Your task to perform on an android device: choose inbox layout in the gmail app Image 0: 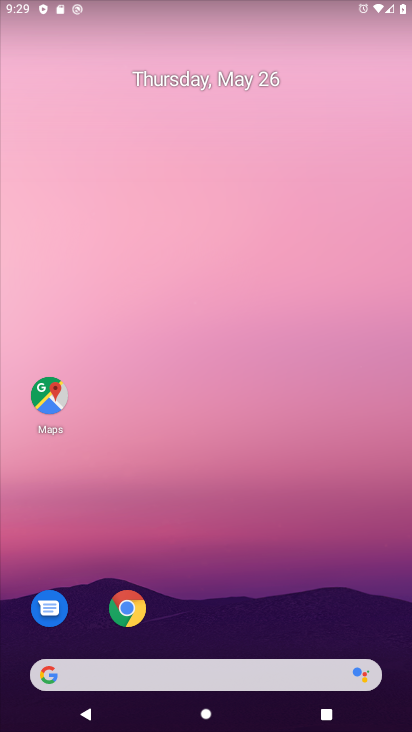
Step 0: drag from (282, 595) to (223, 106)
Your task to perform on an android device: choose inbox layout in the gmail app Image 1: 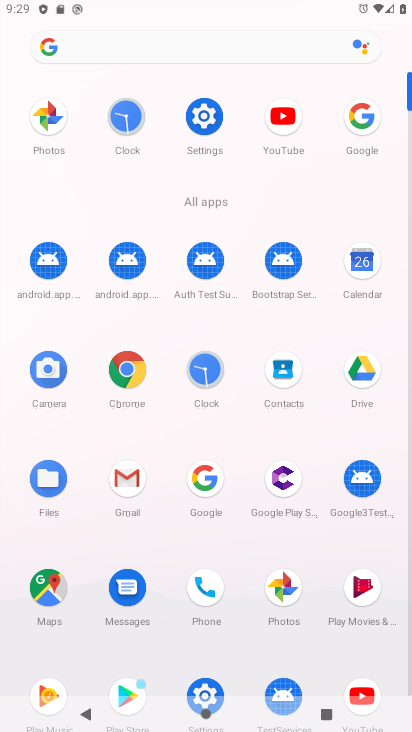
Step 1: click (139, 484)
Your task to perform on an android device: choose inbox layout in the gmail app Image 2: 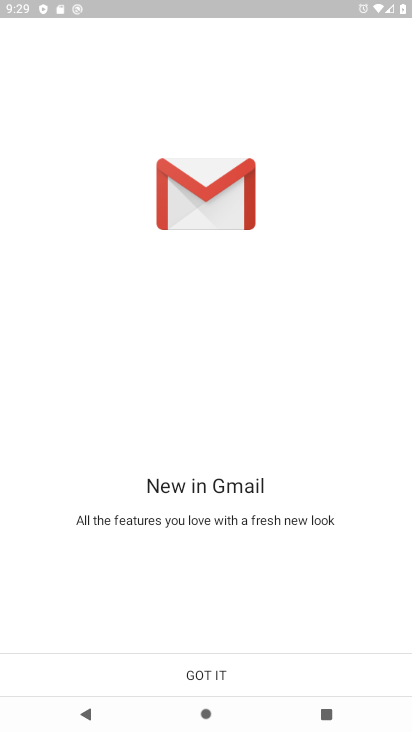
Step 2: click (244, 674)
Your task to perform on an android device: choose inbox layout in the gmail app Image 3: 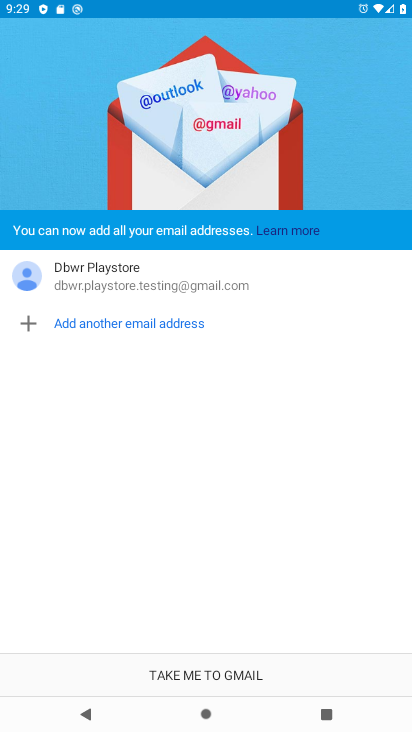
Step 3: click (218, 674)
Your task to perform on an android device: choose inbox layout in the gmail app Image 4: 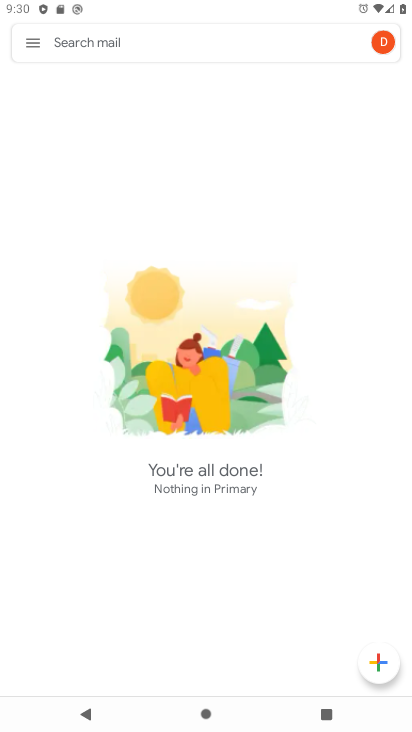
Step 4: click (33, 48)
Your task to perform on an android device: choose inbox layout in the gmail app Image 5: 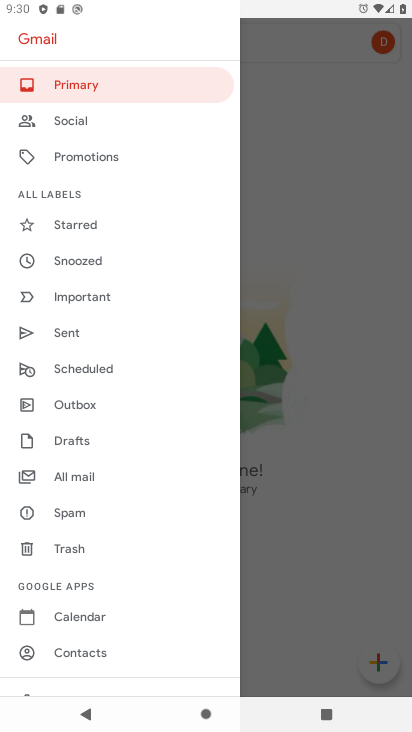
Step 5: drag from (120, 588) to (139, 262)
Your task to perform on an android device: choose inbox layout in the gmail app Image 6: 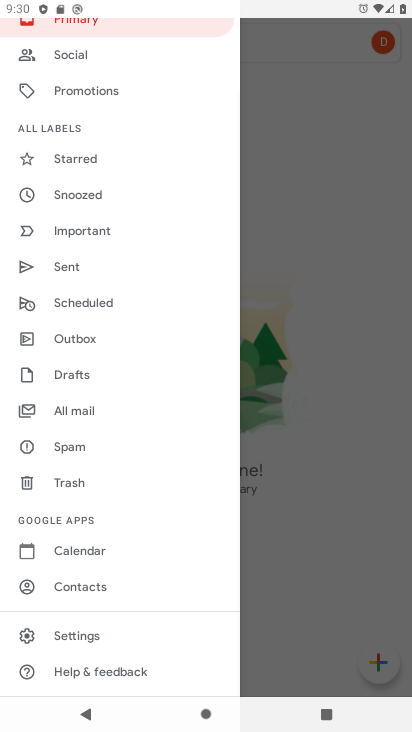
Step 6: click (99, 639)
Your task to perform on an android device: choose inbox layout in the gmail app Image 7: 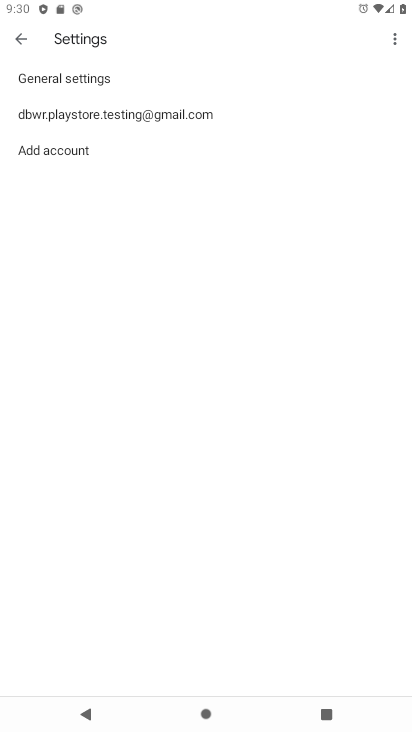
Step 7: click (100, 109)
Your task to perform on an android device: choose inbox layout in the gmail app Image 8: 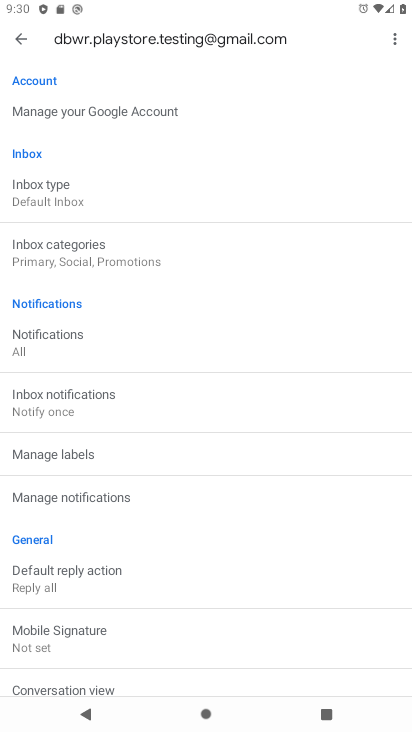
Step 8: drag from (145, 591) to (138, 92)
Your task to perform on an android device: choose inbox layout in the gmail app Image 9: 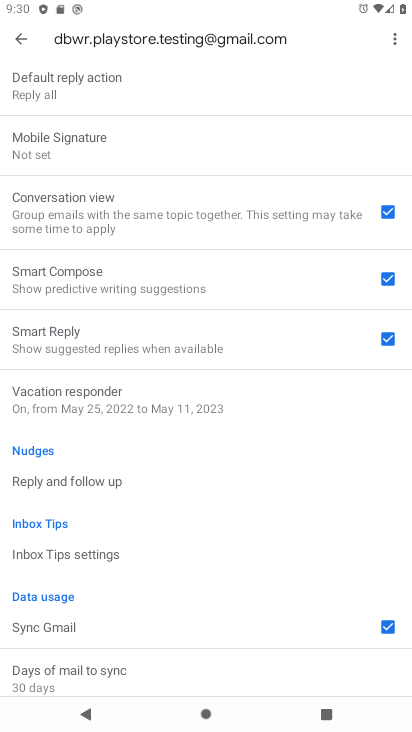
Step 9: drag from (151, 249) to (87, 653)
Your task to perform on an android device: choose inbox layout in the gmail app Image 10: 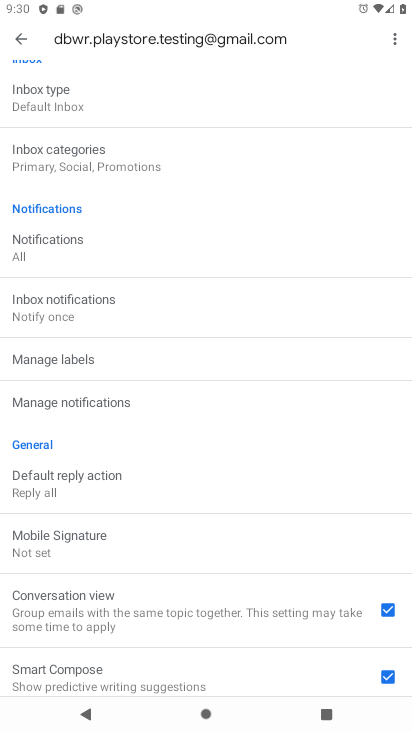
Step 10: click (57, 105)
Your task to perform on an android device: choose inbox layout in the gmail app Image 11: 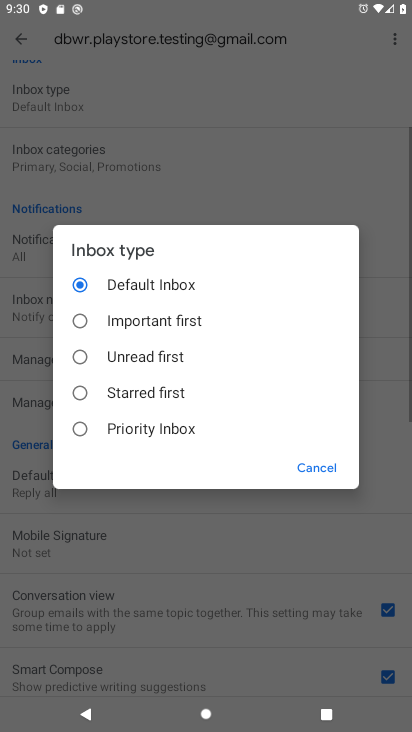
Step 11: click (144, 302)
Your task to perform on an android device: choose inbox layout in the gmail app Image 12: 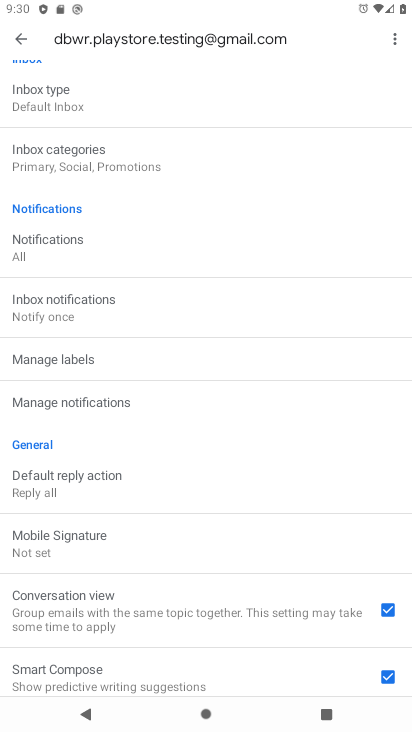
Step 12: click (158, 322)
Your task to perform on an android device: choose inbox layout in the gmail app Image 13: 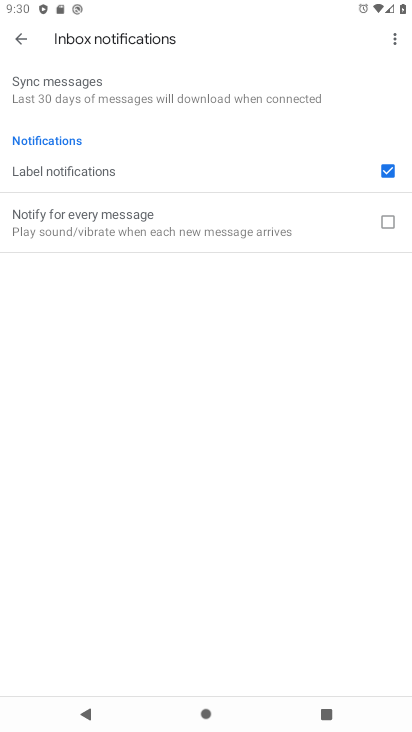
Step 13: click (15, 35)
Your task to perform on an android device: choose inbox layout in the gmail app Image 14: 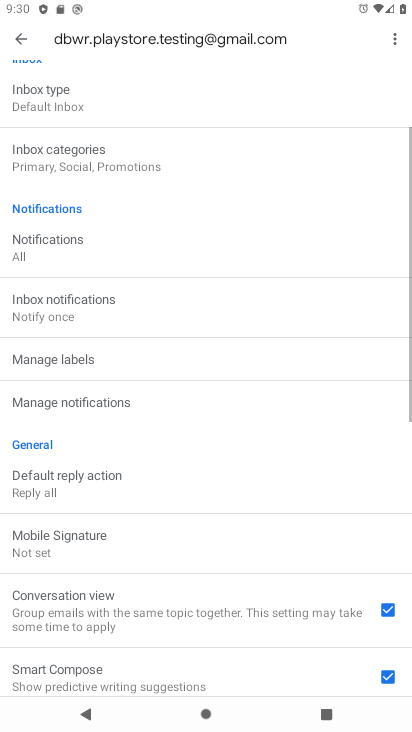
Step 14: task complete